Your task to perform on an android device: Go to CNN.com Image 0: 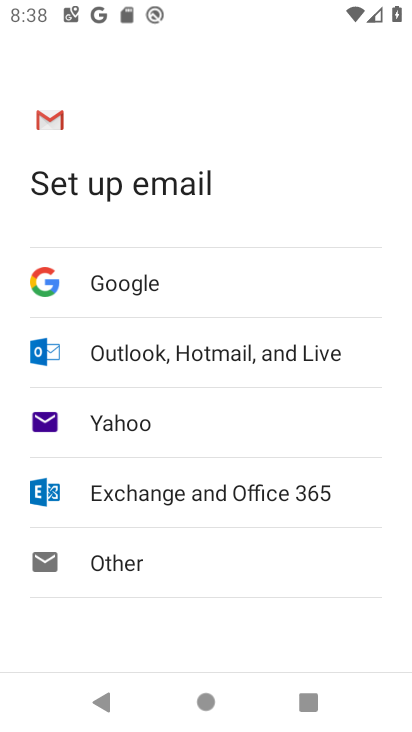
Step 0: press home button
Your task to perform on an android device: Go to CNN.com Image 1: 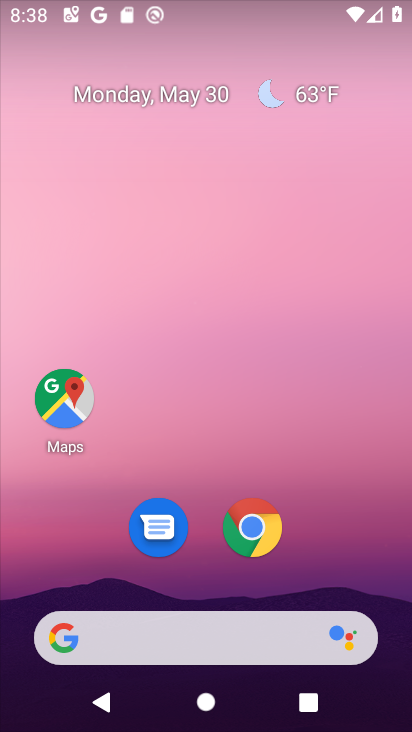
Step 1: click (260, 528)
Your task to perform on an android device: Go to CNN.com Image 2: 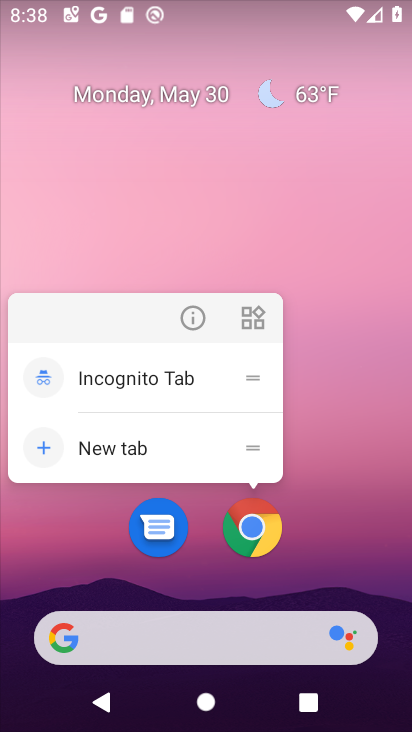
Step 2: click (262, 526)
Your task to perform on an android device: Go to CNN.com Image 3: 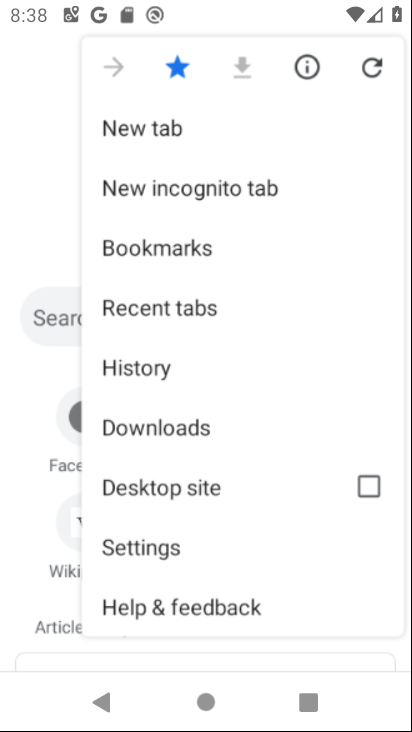
Step 3: click (144, 127)
Your task to perform on an android device: Go to CNN.com Image 4: 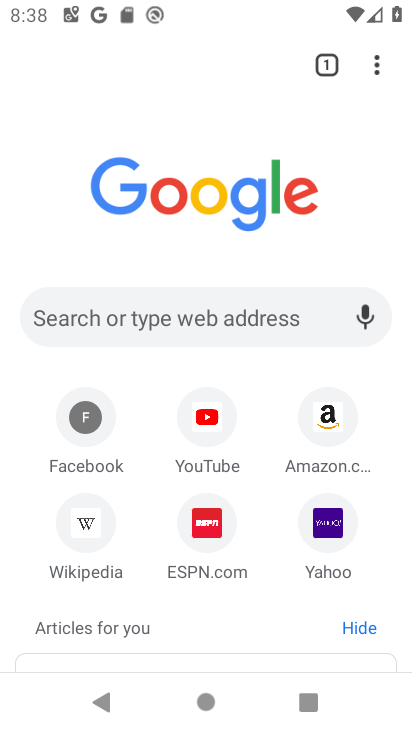
Step 4: click (176, 309)
Your task to perform on an android device: Go to CNN.com Image 5: 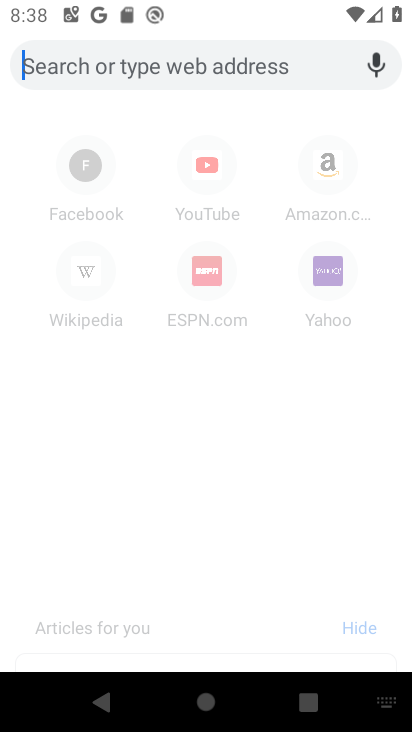
Step 5: type "CNN.com"
Your task to perform on an android device: Go to CNN.com Image 6: 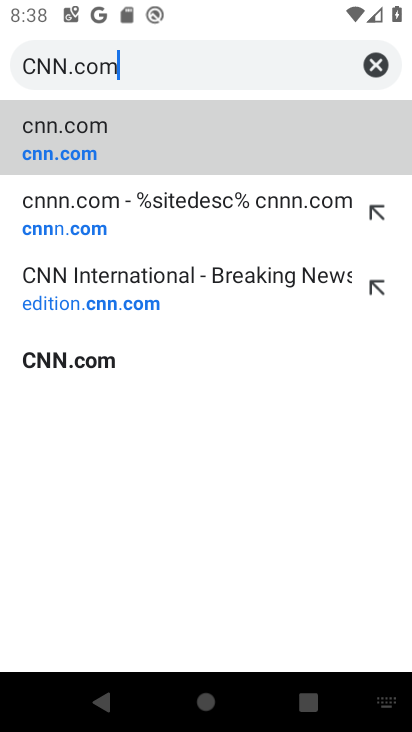
Step 6: click (99, 123)
Your task to perform on an android device: Go to CNN.com Image 7: 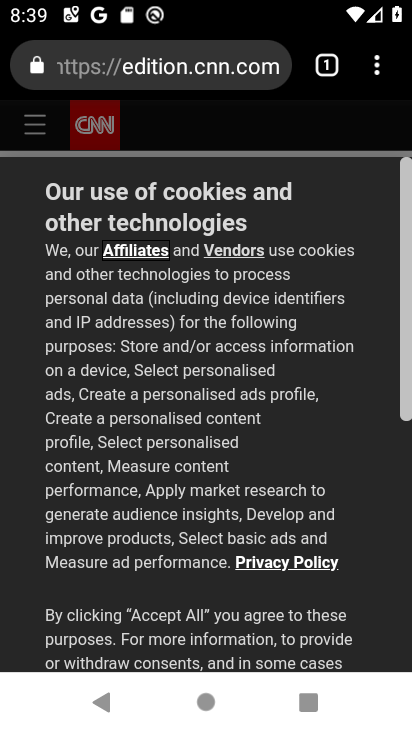
Step 7: task complete